Your task to perform on an android device: turn off smart reply in the gmail app Image 0: 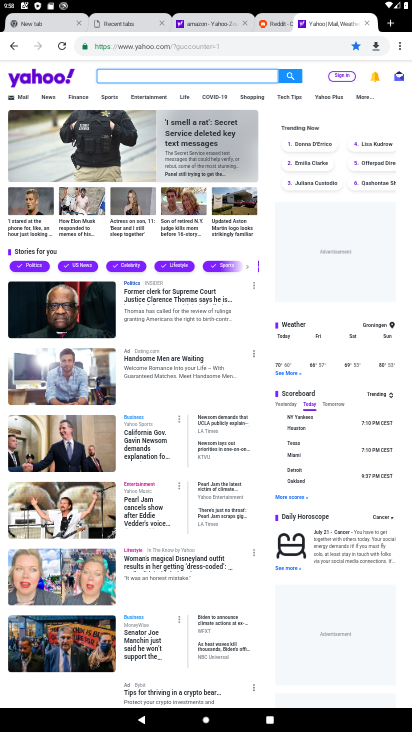
Step 0: press home button
Your task to perform on an android device: turn off smart reply in the gmail app Image 1: 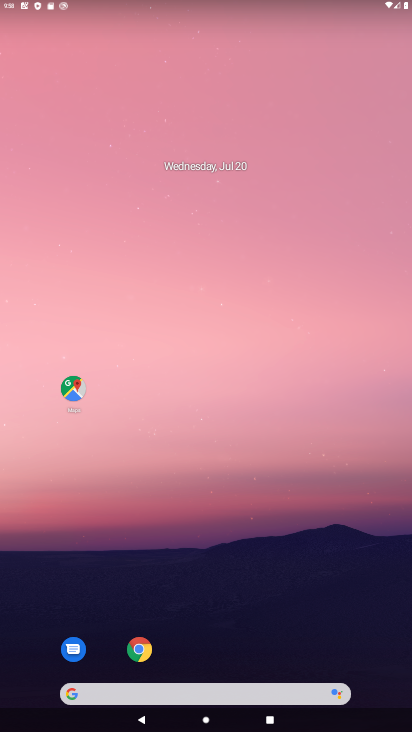
Step 1: drag from (261, 657) to (284, 186)
Your task to perform on an android device: turn off smart reply in the gmail app Image 2: 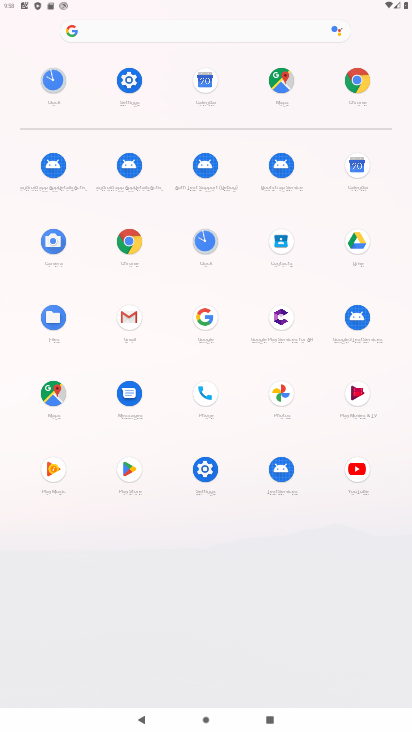
Step 2: click (137, 327)
Your task to perform on an android device: turn off smart reply in the gmail app Image 3: 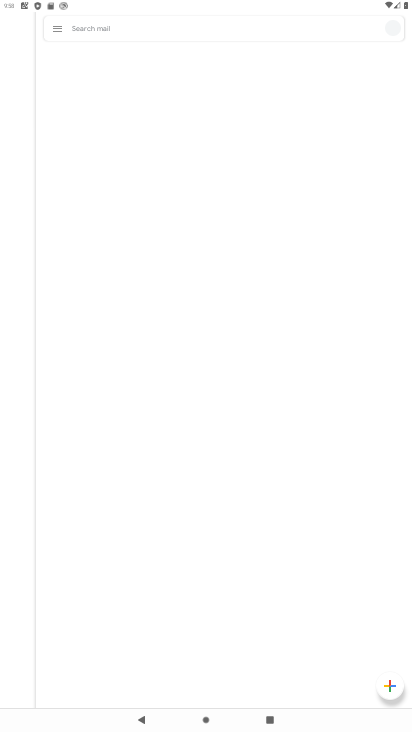
Step 3: task complete